Your task to perform on an android device: Open Android settings Image 0: 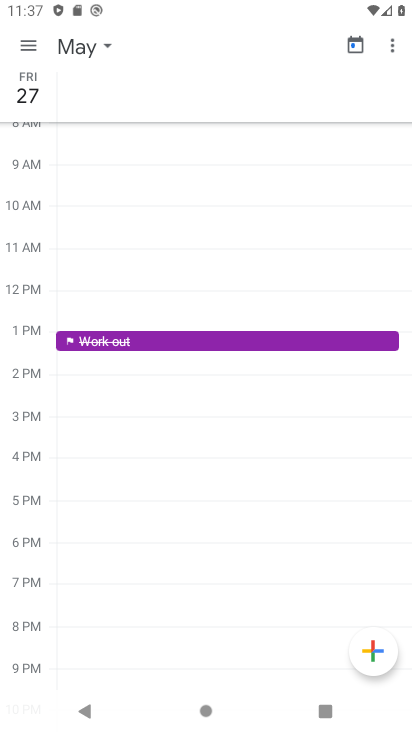
Step 0: press home button
Your task to perform on an android device: Open Android settings Image 1: 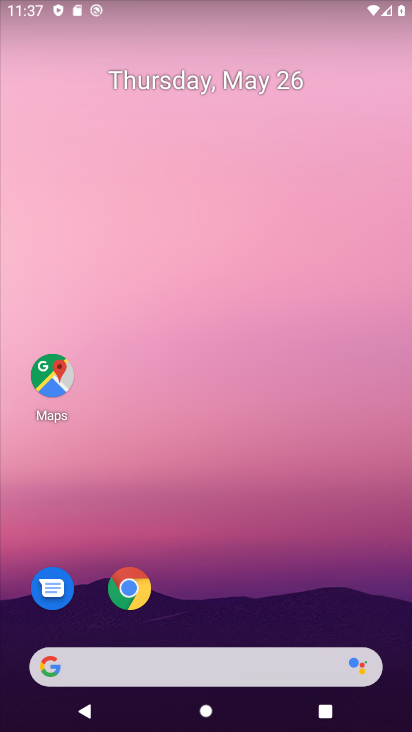
Step 1: drag from (213, 639) to (365, 425)
Your task to perform on an android device: Open Android settings Image 2: 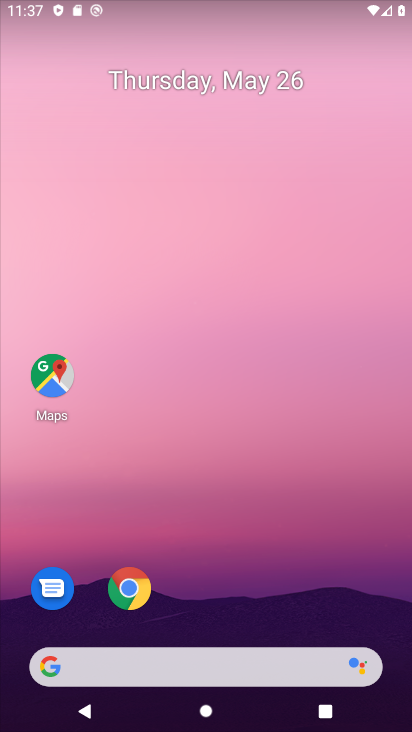
Step 2: drag from (184, 625) to (211, 27)
Your task to perform on an android device: Open Android settings Image 3: 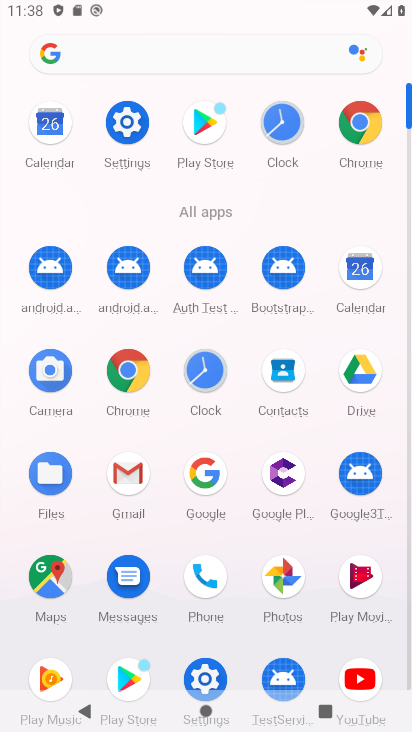
Step 3: click (214, 663)
Your task to perform on an android device: Open Android settings Image 4: 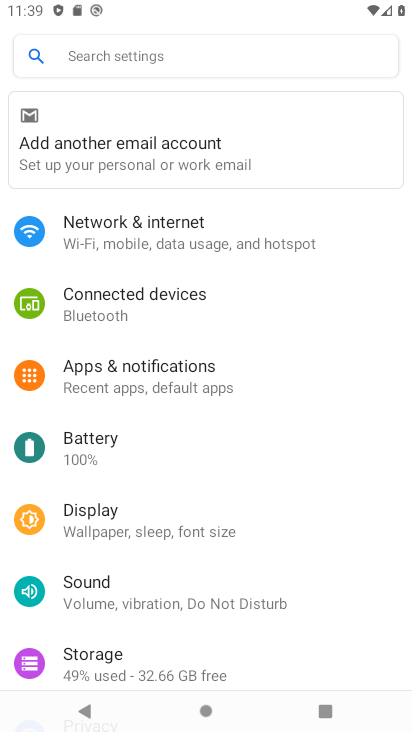
Step 4: task complete